Your task to perform on an android device: What's the weather? Image 0: 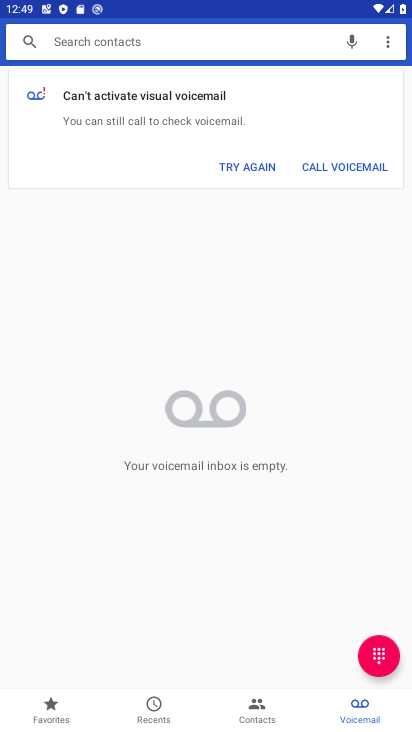
Step 0: press home button
Your task to perform on an android device: What's the weather? Image 1: 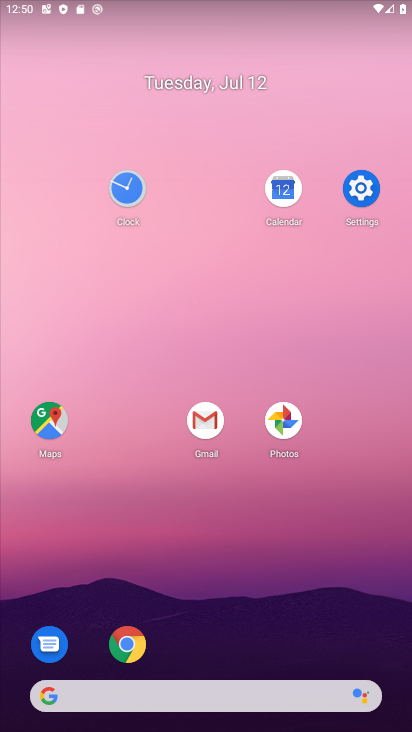
Step 1: click (125, 646)
Your task to perform on an android device: What's the weather? Image 2: 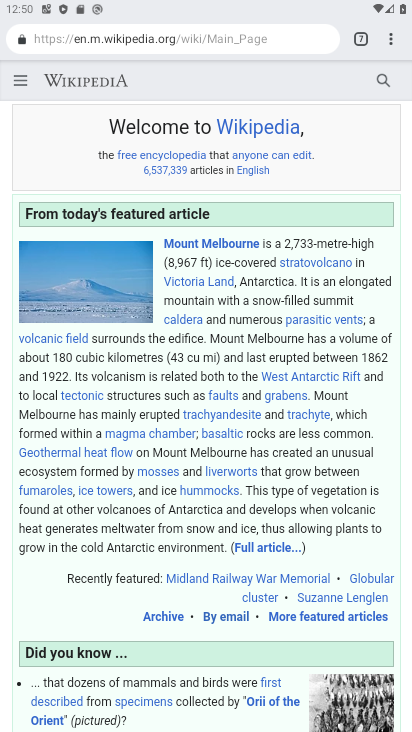
Step 2: click (359, 42)
Your task to perform on an android device: What's the weather? Image 3: 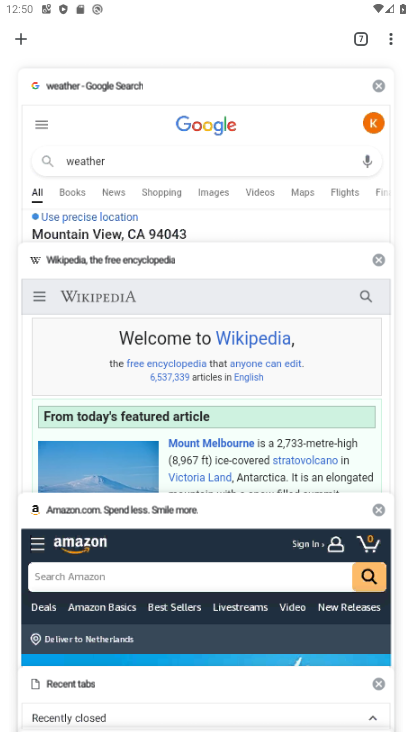
Step 3: drag from (127, 135) to (139, 289)
Your task to perform on an android device: What's the weather? Image 4: 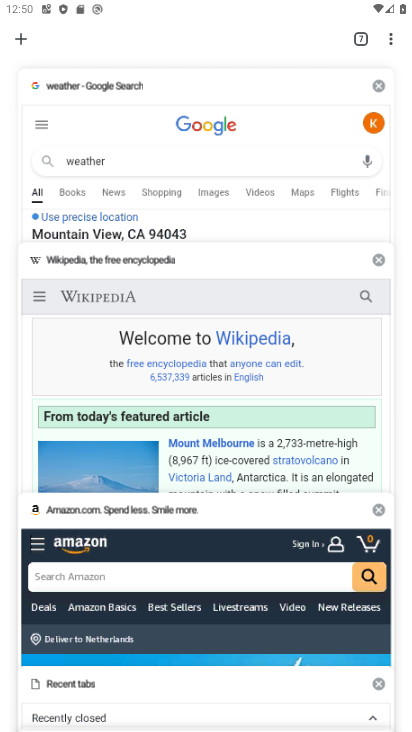
Step 4: click (126, 85)
Your task to perform on an android device: What's the weather? Image 5: 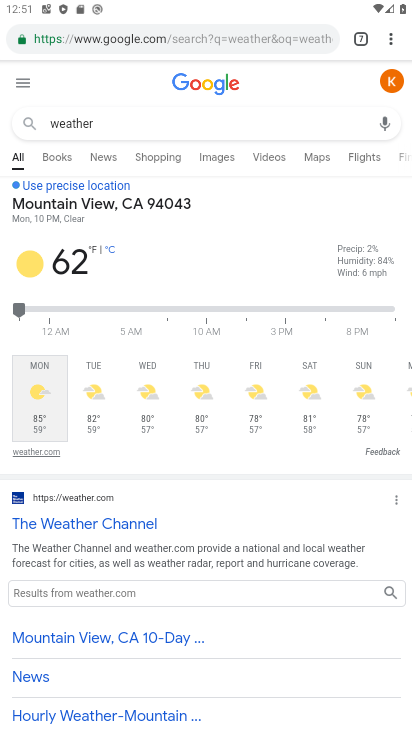
Step 5: task complete